Your task to perform on an android device: open a new tab in the chrome app Image 0: 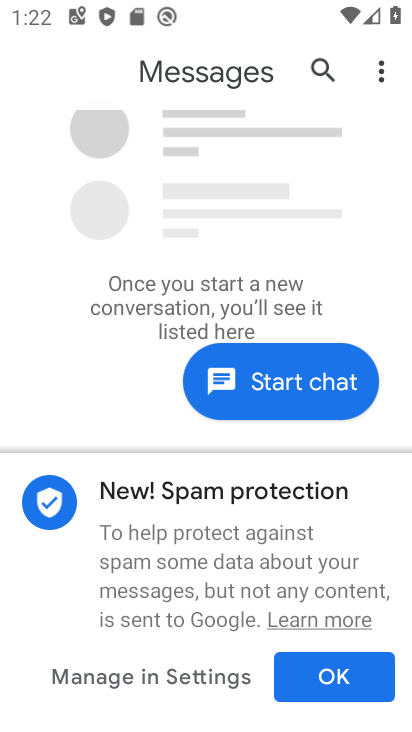
Step 0: press home button
Your task to perform on an android device: open a new tab in the chrome app Image 1: 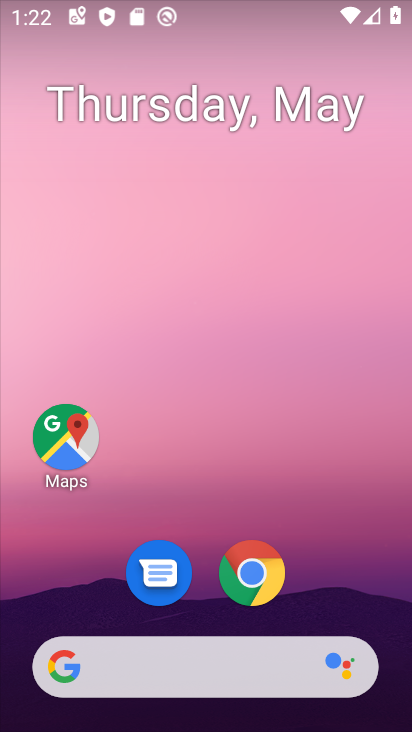
Step 1: click (252, 589)
Your task to perform on an android device: open a new tab in the chrome app Image 2: 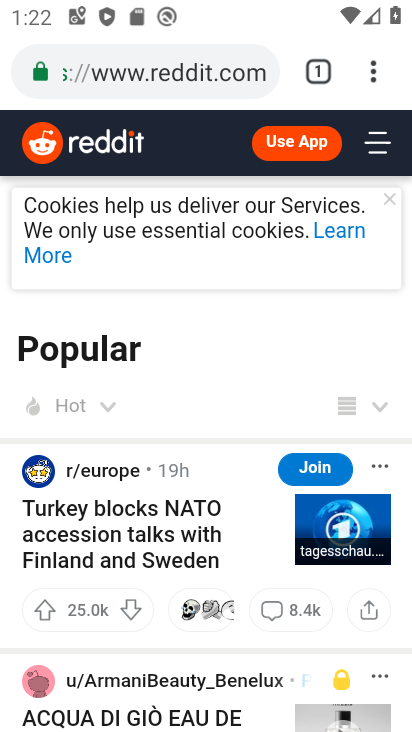
Step 2: task complete